Your task to perform on an android device: Go to battery settings Image 0: 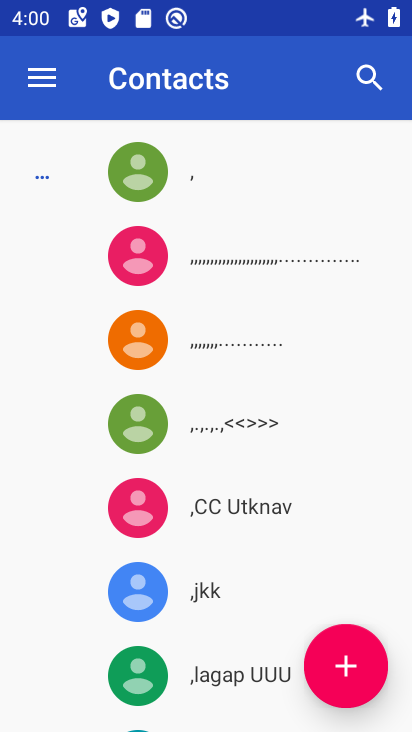
Step 0: press home button
Your task to perform on an android device: Go to battery settings Image 1: 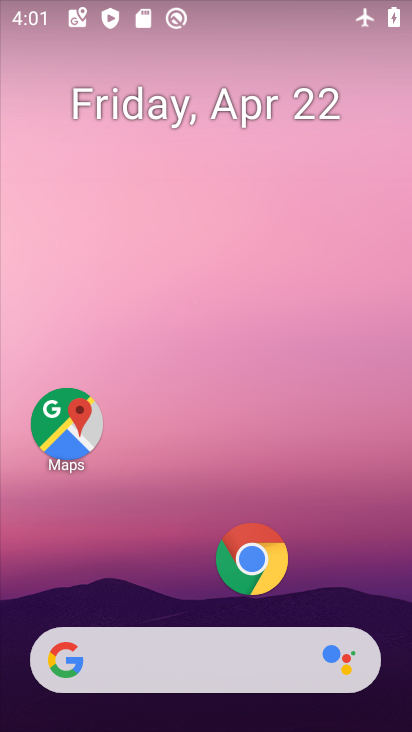
Step 1: drag from (157, 564) to (240, 59)
Your task to perform on an android device: Go to battery settings Image 2: 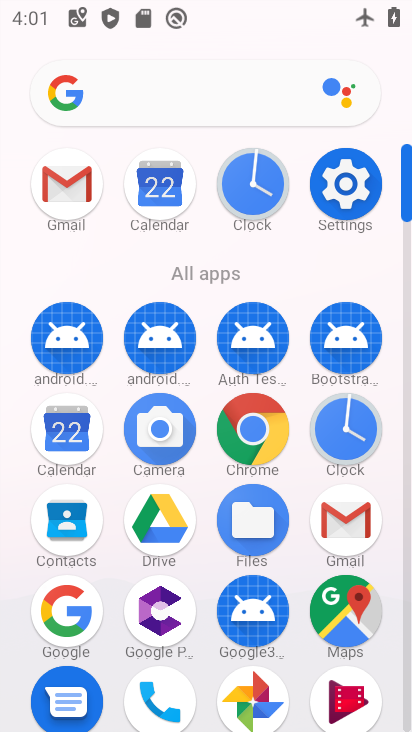
Step 2: click (355, 195)
Your task to perform on an android device: Go to battery settings Image 3: 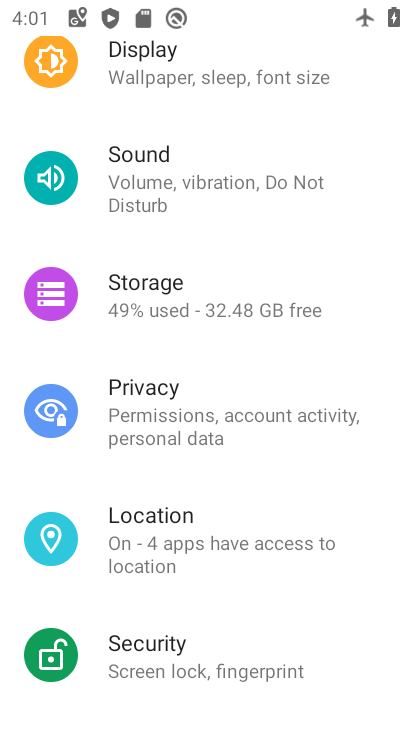
Step 3: drag from (209, 223) to (184, 640)
Your task to perform on an android device: Go to battery settings Image 4: 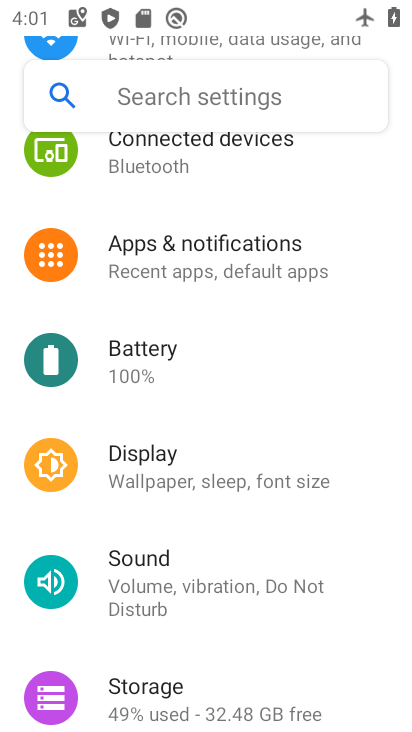
Step 4: click (165, 348)
Your task to perform on an android device: Go to battery settings Image 5: 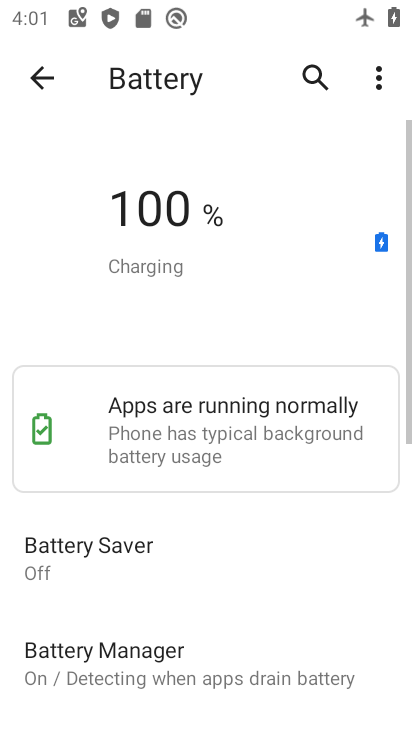
Step 5: task complete